Your task to perform on an android device: How much does a 2 bedroom apartment rent for in Portland? Image 0: 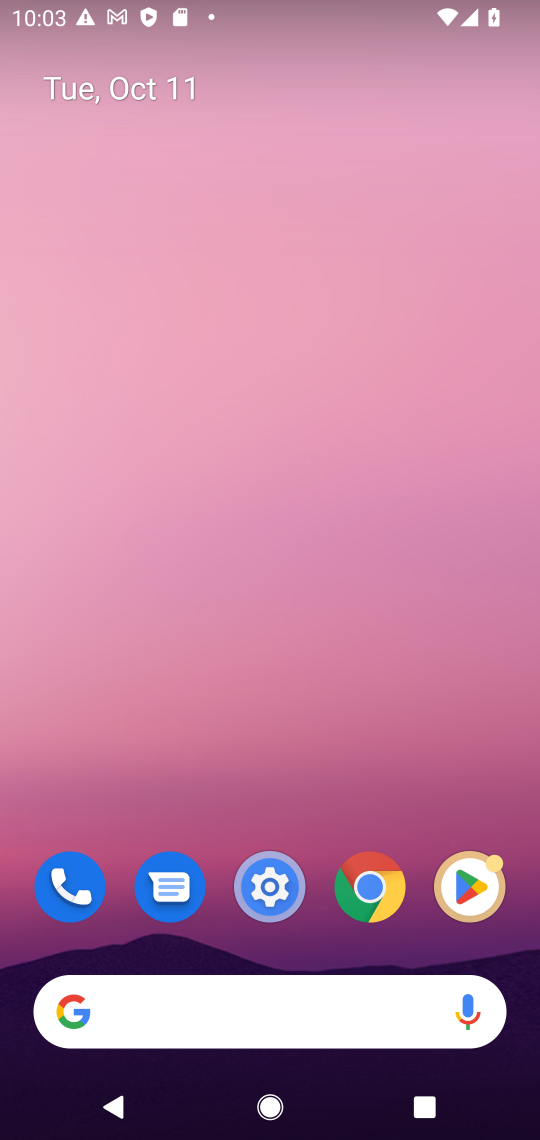
Step 0: click (230, 1016)
Your task to perform on an android device: How much does a 2 bedroom apartment rent for in Portland? Image 1: 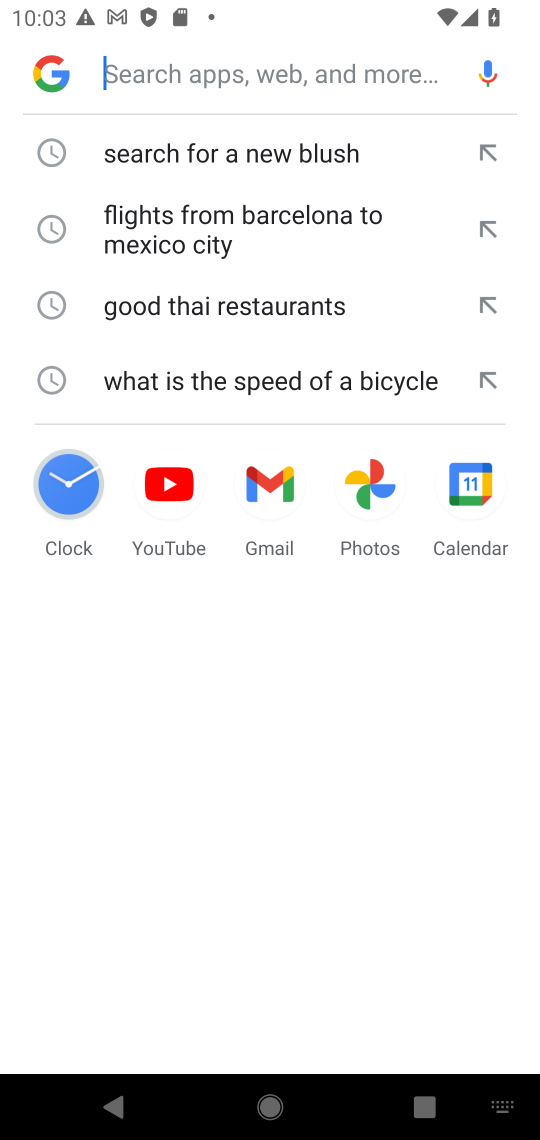
Step 1: type "2 bedroom apartment rent for in Portland"
Your task to perform on an android device: How much does a 2 bedroom apartment rent for in Portland? Image 2: 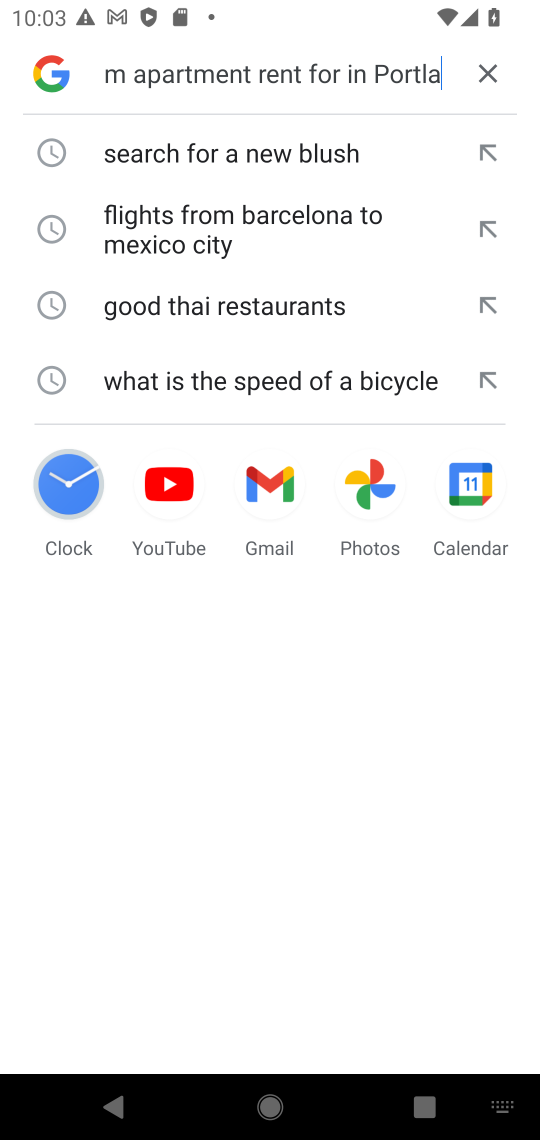
Step 2: press enter
Your task to perform on an android device: How much does a 2 bedroom apartment rent for in Portland? Image 3: 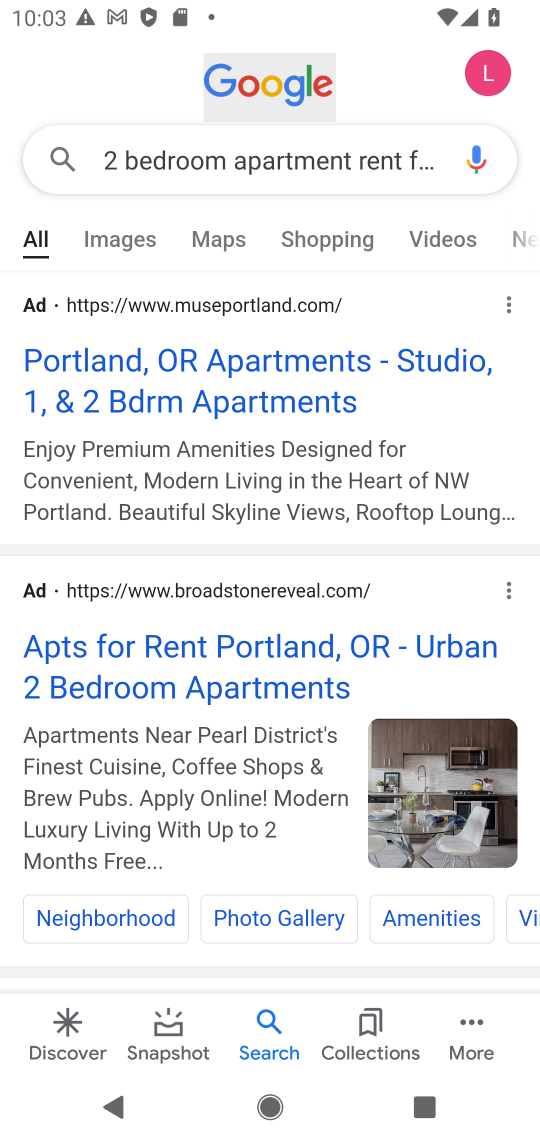
Step 3: click (244, 381)
Your task to perform on an android device: How much does a 2 bedroom apartment rent for in Portland? Image 4: 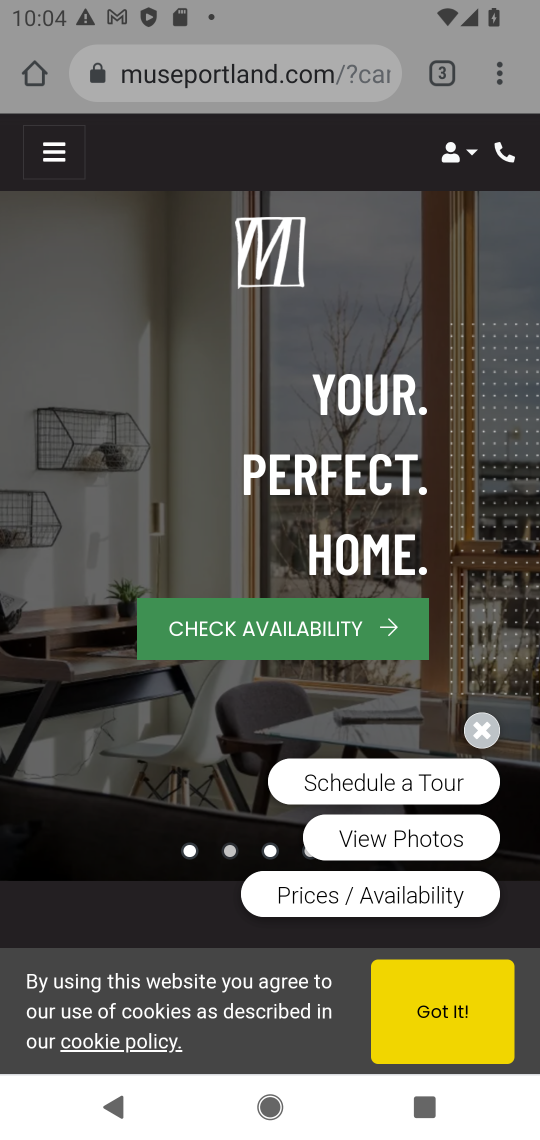
Step 4: click (427, 1030)
Your task to perform on an android device: How much does a 2 bedroom apartment rent for in Portland? Image 5: 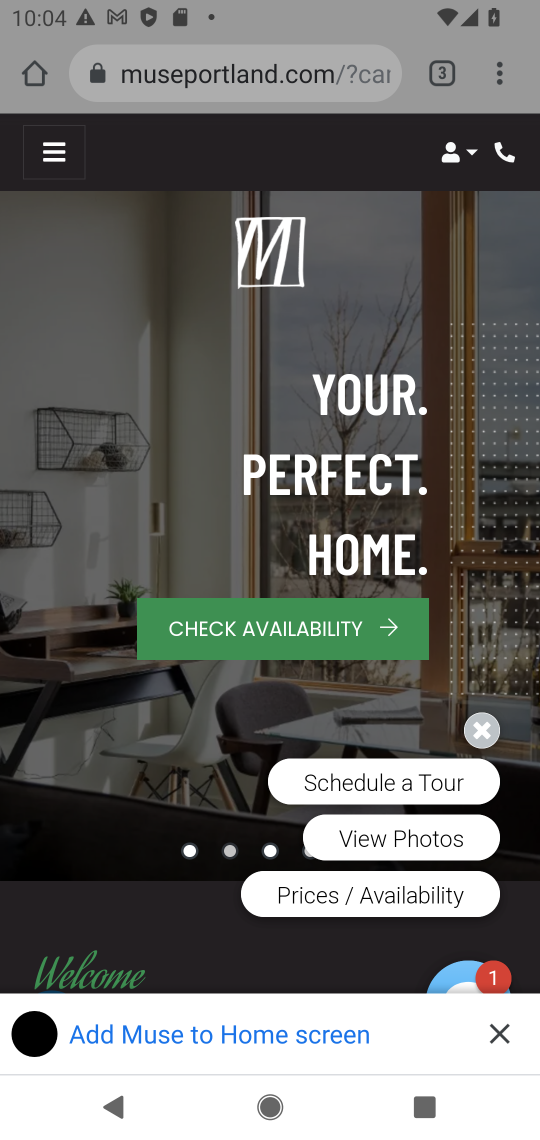
Step 5: task complete